Your task to perform on an android device: Search for usb-a to usb-b on target, select the first entry, add it to the cart, then select checkout. Image 0: 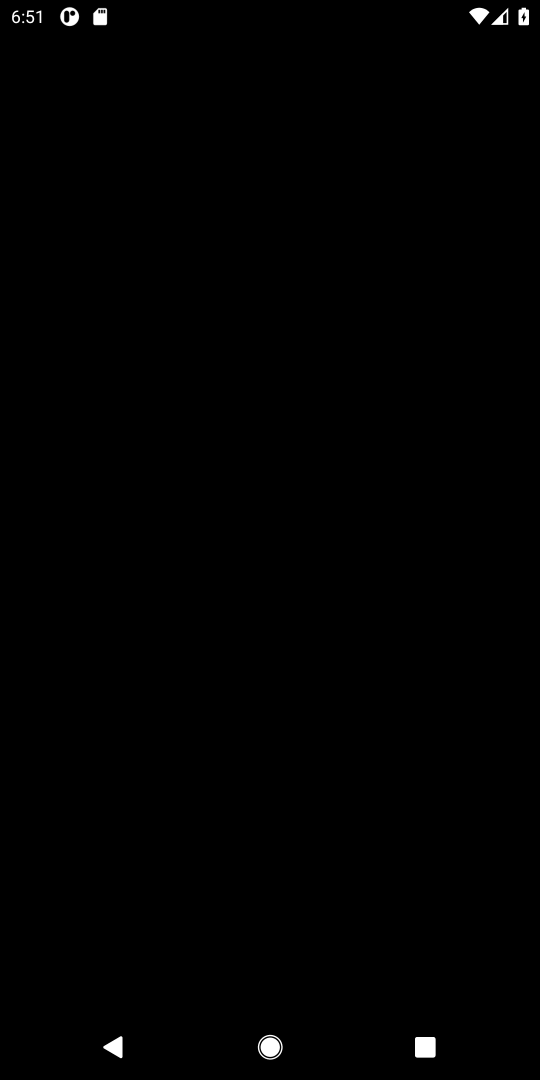
Step 0: press home button
Your task to perform on an android device: Search for usb-a to usb-b on target, select the first entry, add it to the cart, then select checkout. Image 1: 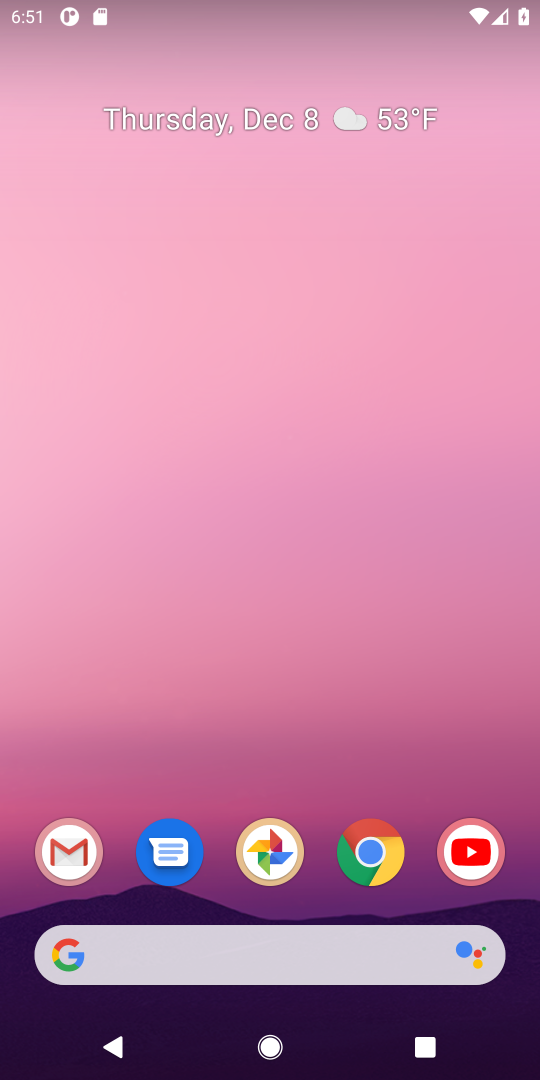
Step 1: click (379, 953)
Your task to perform on an android device: Search for usb-a to usb-b on target, select the first entry, add it to the cart, then select checkout. Image 2: 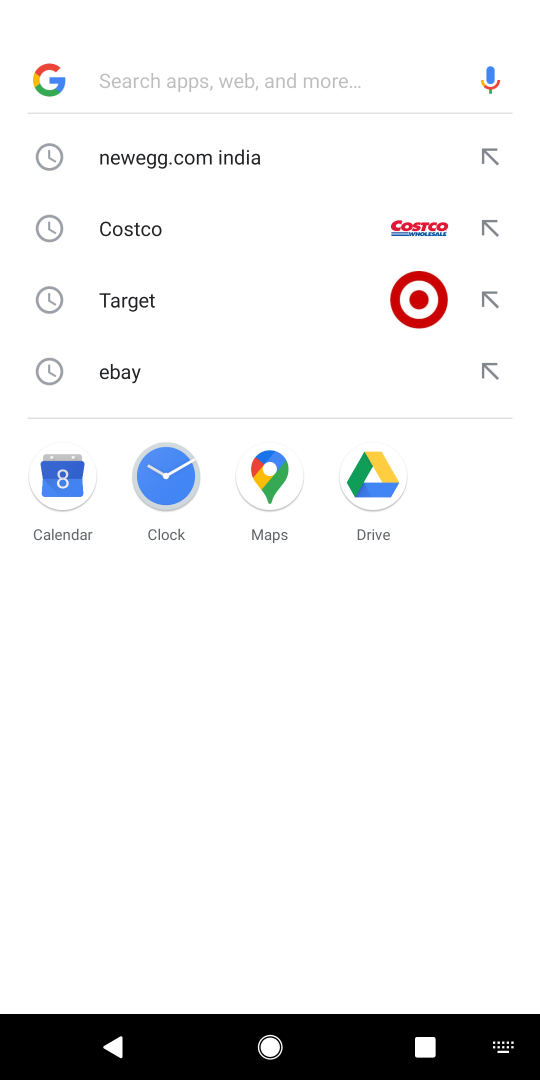
Step 2: click (77, 296)
Your task to perform on an android device: Search for usb-a to usb-b on target, select the first entry, add it to the cart, then select checkout. Image 3: 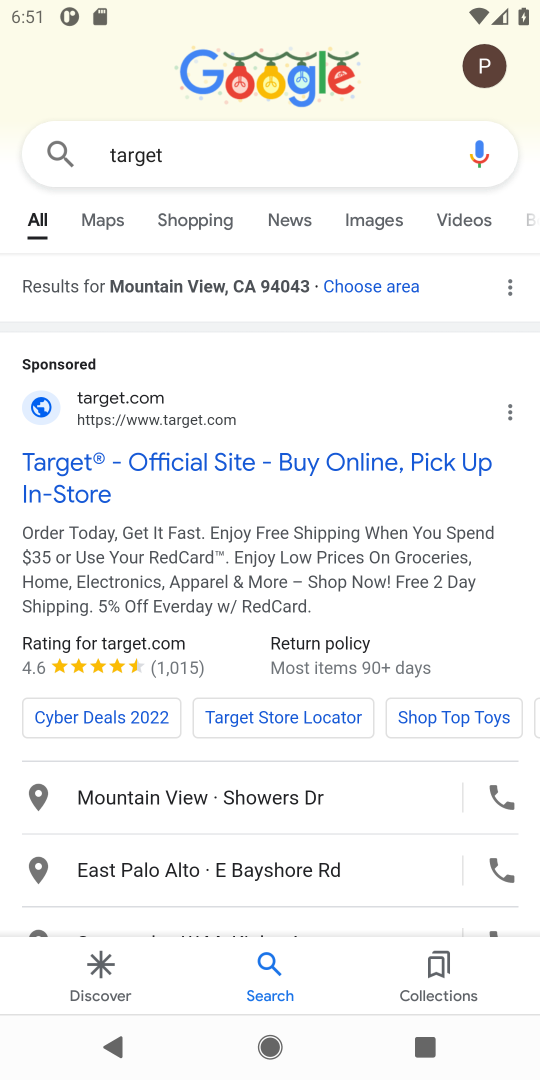
Step 3: click (164, 459)
Your task to perform on an android device: Search for usb-a to usb-b on target, select the first entry, add it to the cart, then select checkout. Image 4: 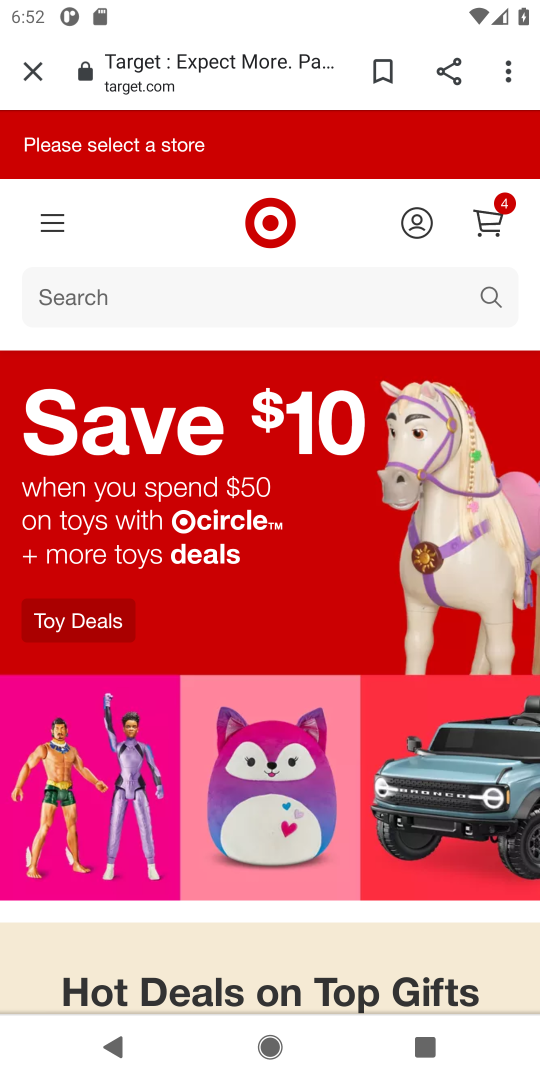
Step 4: click (83, 303)
Your task to perform on an android device: Search for usb-a to usb-b on target, select the first entry, add it to the cart, then select checkout. Image 5: 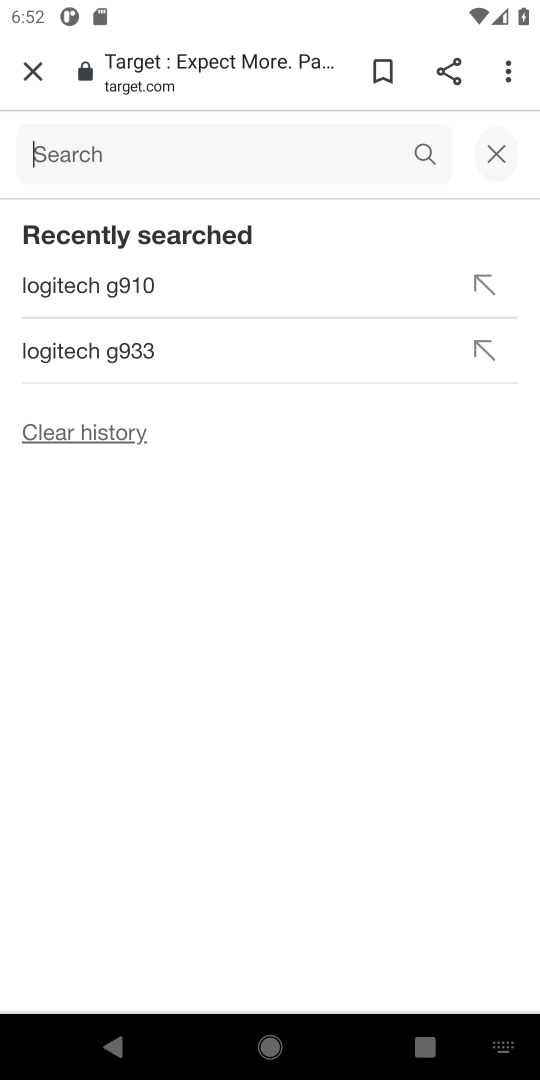
Step 5: type "usb-b"
Your task to perform on an android device: Search for usb-a to usb-b on target, select the first entry, add it to the cart, then select checkout. Image 6: 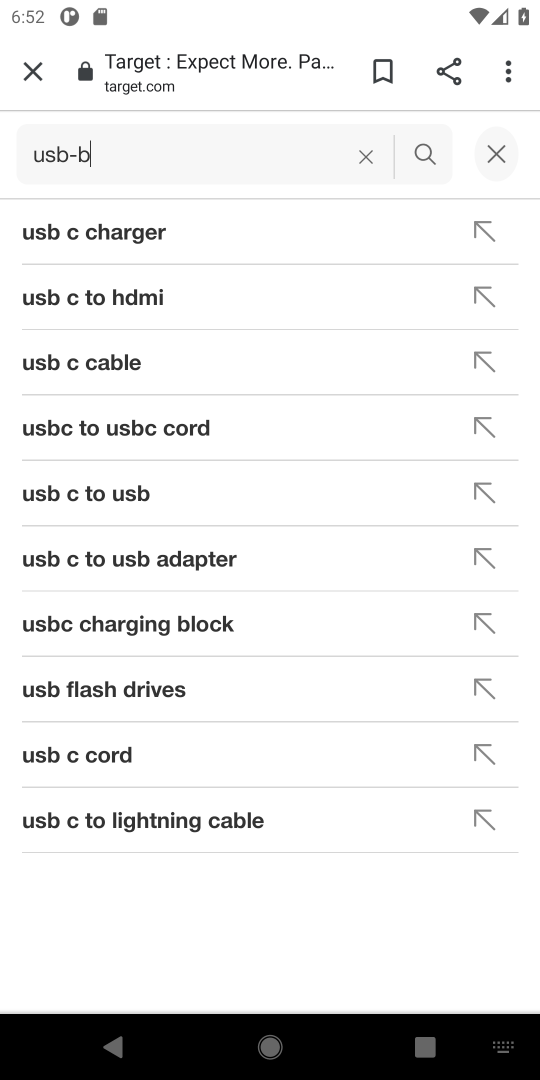
Step 6: click (410, 169)
Your task to perform on an android device: Search for usb-a to usb-b on target, select the first entry, add it to the cart, then select checkout. Image 7: 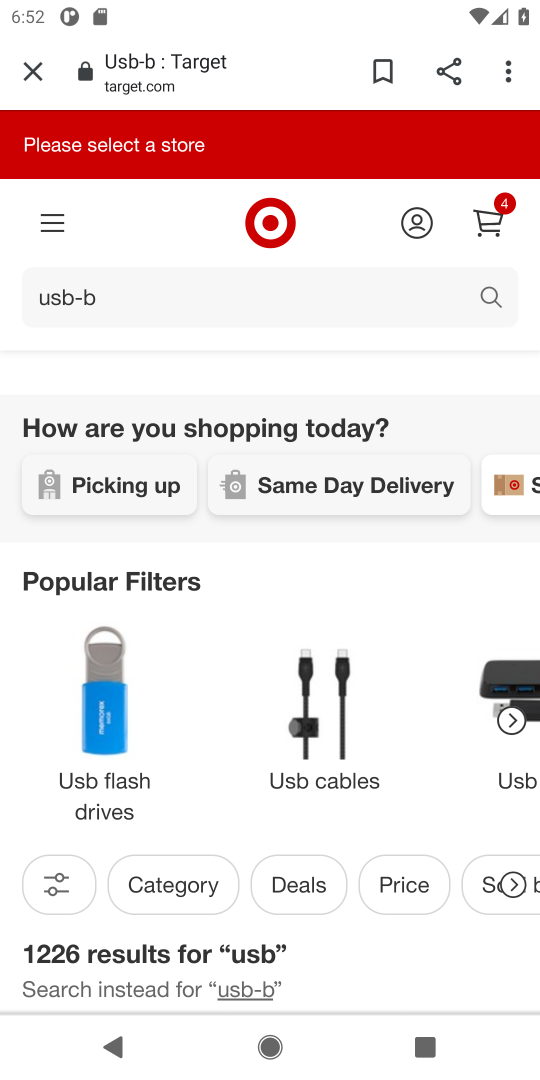
Step 7: click (315, 792)
Your task to perform on an android device: Search for usb-a to usb-b on target, select the first entry, add it to the cart, then select checkout. Image 8: 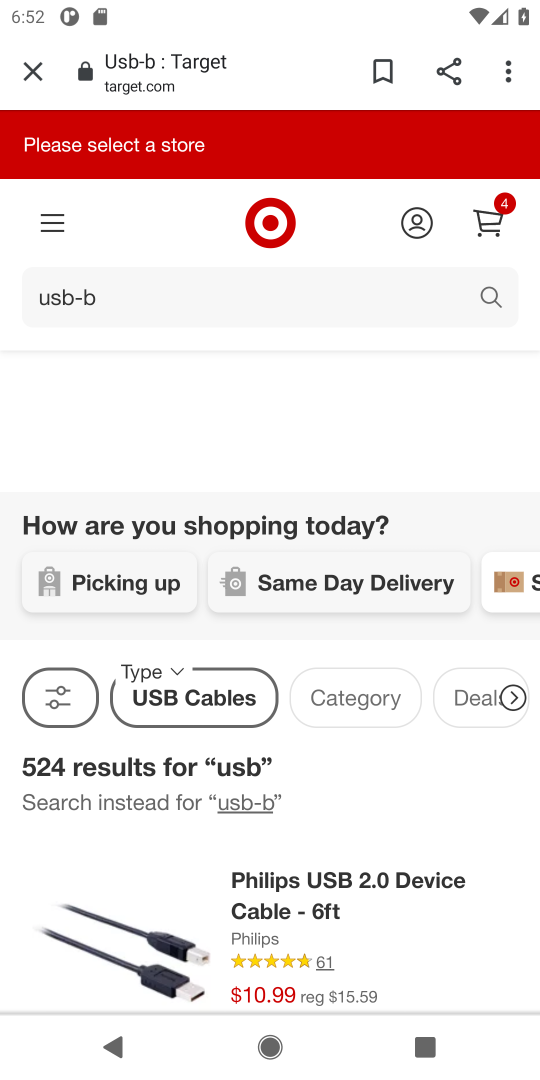
Step 8: task complete